Your task to perform on an android device: Open ESPN.com Image 0: 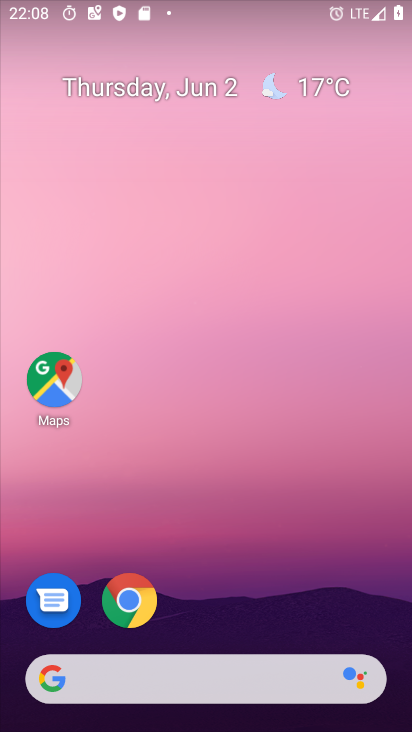
Step 0: drag from (350, 620) to (357, 239)
Your task to perform on an android device: Open ESPN.com Image 1: 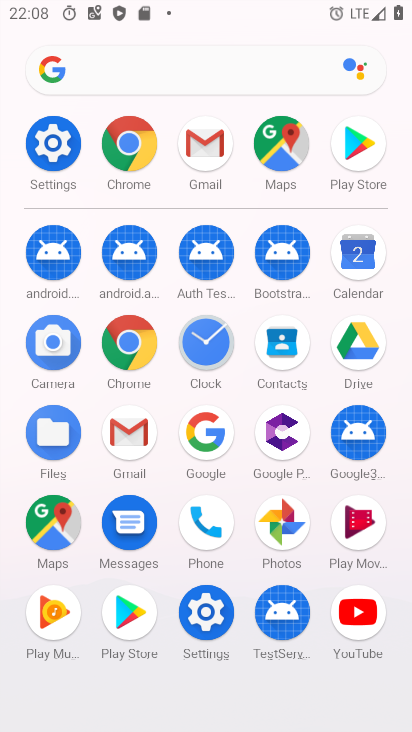
Step 1: click (141, 354)
Your task to perform on an android device: Open ESPN.com Image 2: 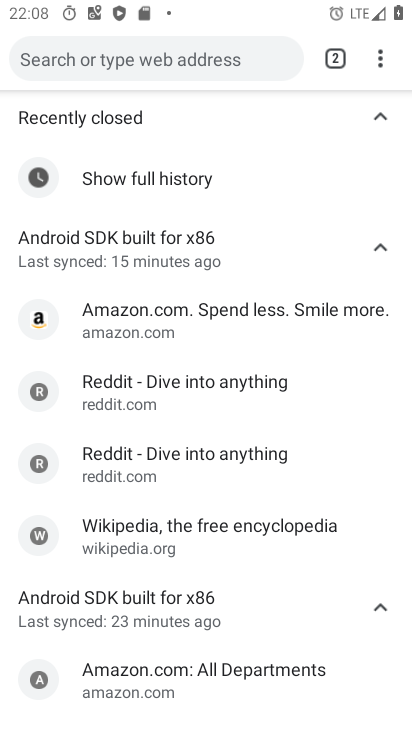
Step 2: click (215, 59)
Your task to perform on an android device: Open ESPN.com Image 3: 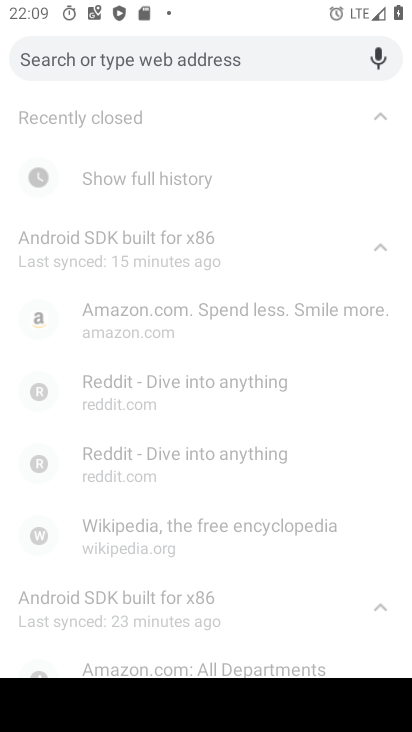
Step 3: type "espn,com"
Your task to perform on an android device: Open ESPN.com Image 4: 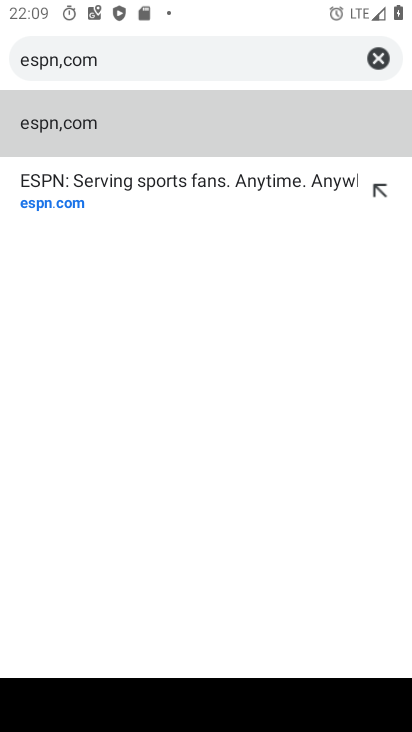
Step 4: click (129, 190)
Your task to perform on an android device: Open ESPN.com Image 5: 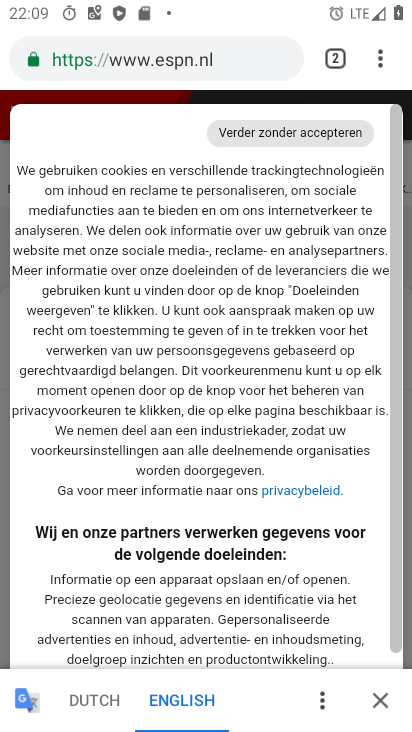
Step 5: task complete